Your task to perform on an android device: Turn off the flashlight Image 0: 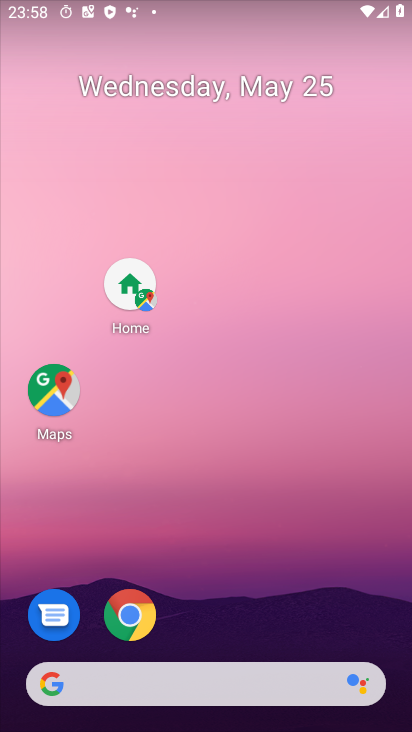
Step 0: press home button
Your task to perform on an android device: Turn off the flashlight Image 1: 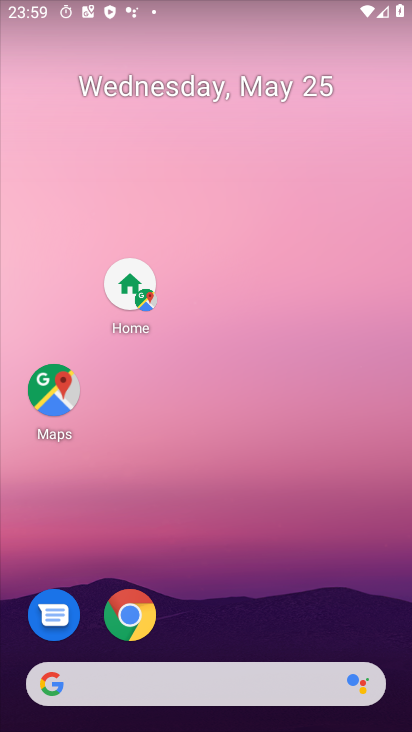
Step 1: task complete